Your task to perform on an android device: Open the calendar and show me this week's events Image 0: 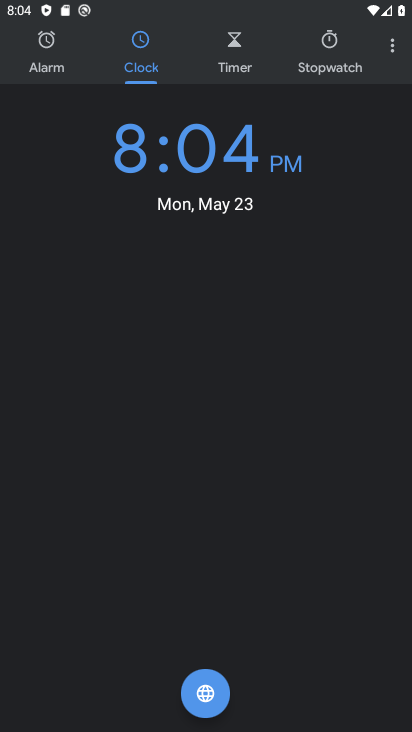
Step 0: press home button
Your task to perform on an android device: Open the calendar and show me this week's events Image 1: 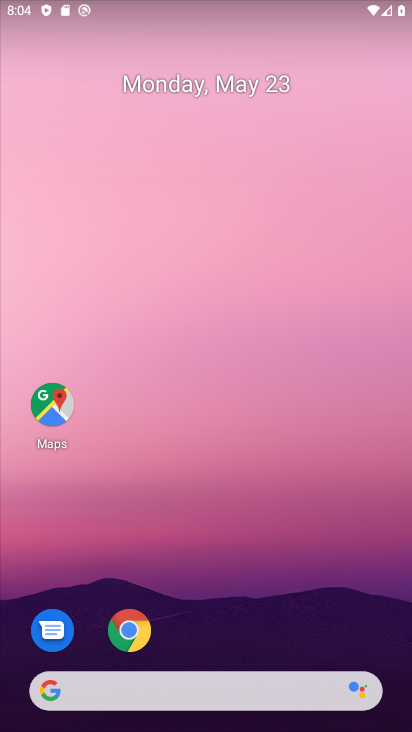
Step 1: drag from (219, 623) to (156, 173)
Your task to perform on an android device: Open the calendar and show me this week's events Image 2: 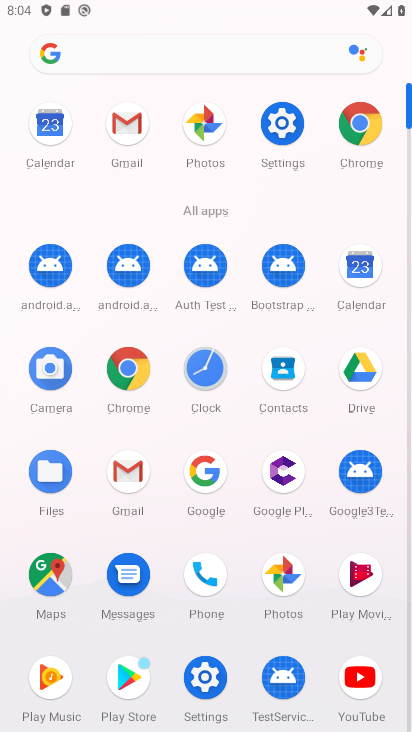
Step 2: click (51, 134)
Your task to perform on an android device: Open the calendar and show me this week's events Image 3: 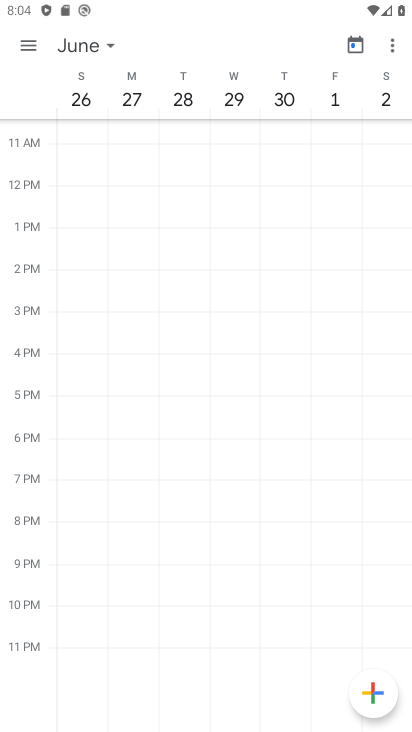
Step 3: click (90, 55)
Your task to perform on an android device: Open the calendar and show me this week's events Image 4: 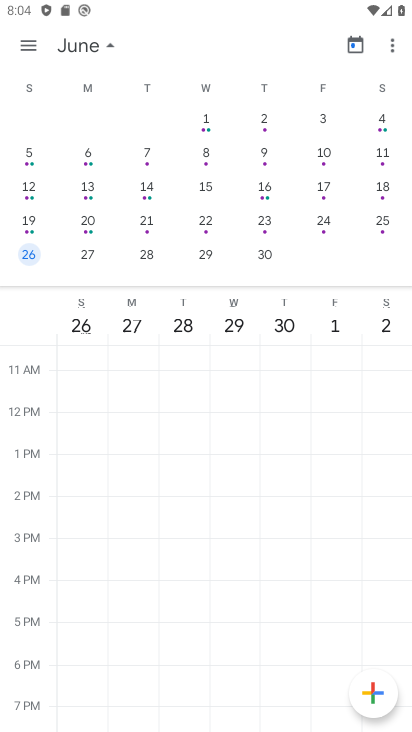
Step 4: drag from (44, 178) to (407, 197)
Your task to perform on an android device: Open the calendar and show me this week's events Image 5: 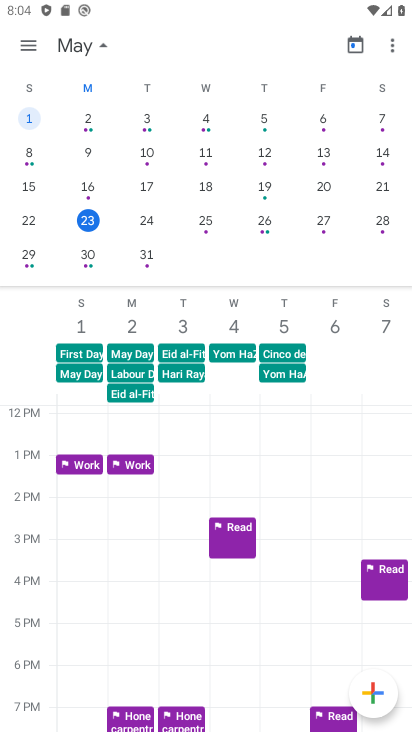
Step 5: click (22, 223)
Your task to perform on an android device: Open the calendar and show me this week's events Image 6: 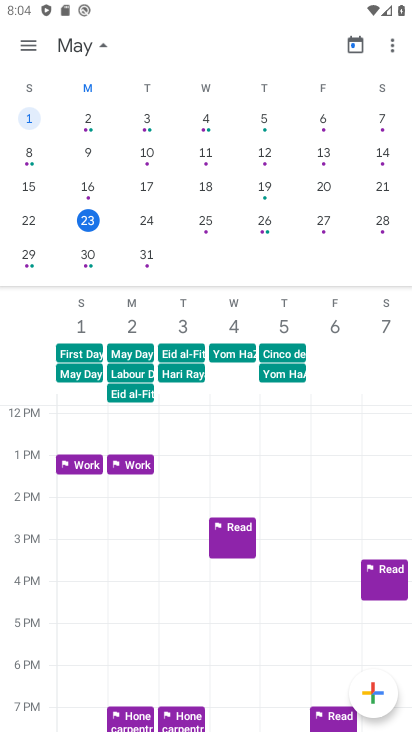
Step 6: click (25, 228)
Your task to perform on an android device: Open the calendar and show me this week's events Image 7: 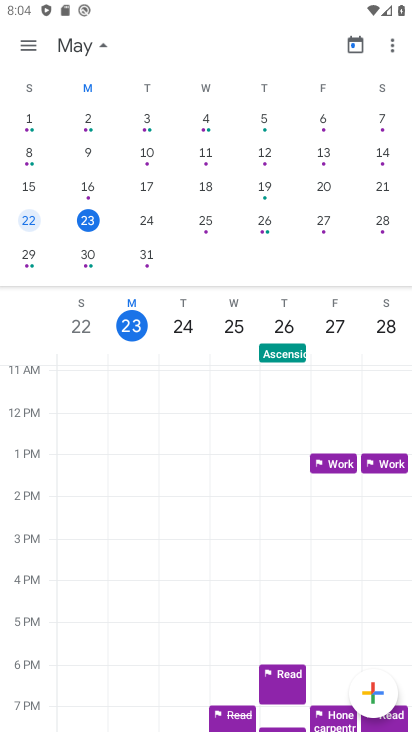
Step 7: task complete